Your task to perform on an android device: turn off javascript in the chrome app Image 0: 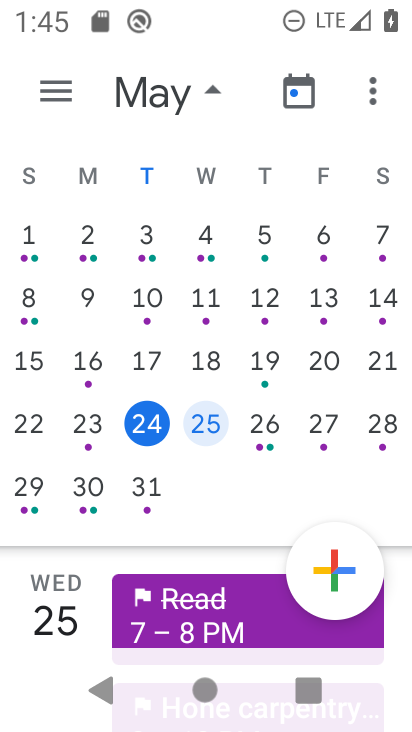
Step 0: press home button
Your task to perform on an android device: turn off javascript in the chrome app Image 1: 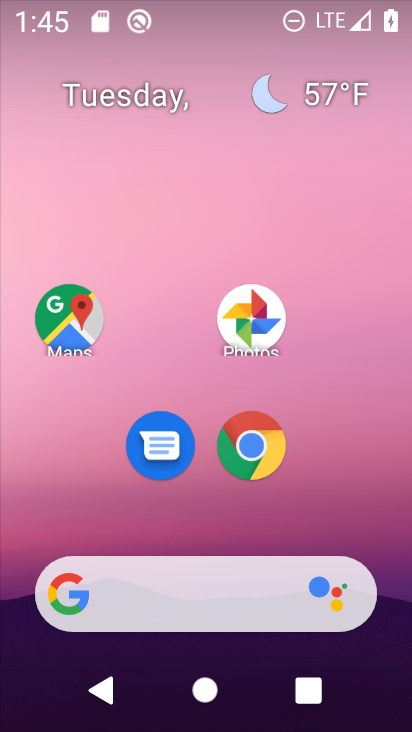
Step 1: drag from (382, 528) to (410, 496)
Your task to perform on an android device: turn off javascript in the chrome app Image 2: 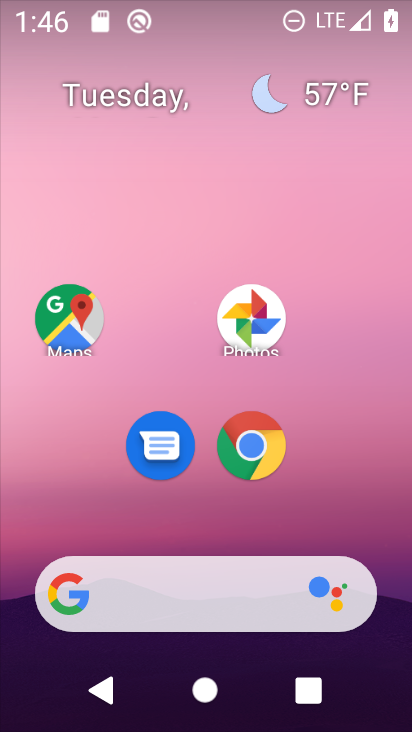
Step 2: drag from (373, 557) to (406, 517)
Your task to perform on an android device: turn off javascript in the chrome app Image 3: 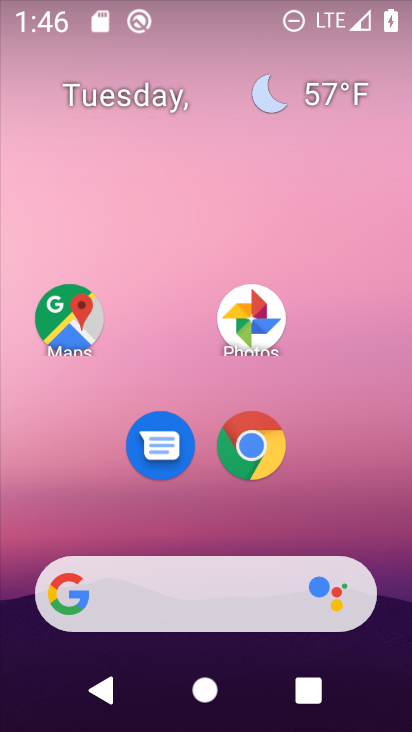
Step 3: drag from (363, 525) to (390, 33)
Your task to perform on an android device: turn off javascript in the chrome app Image 4: 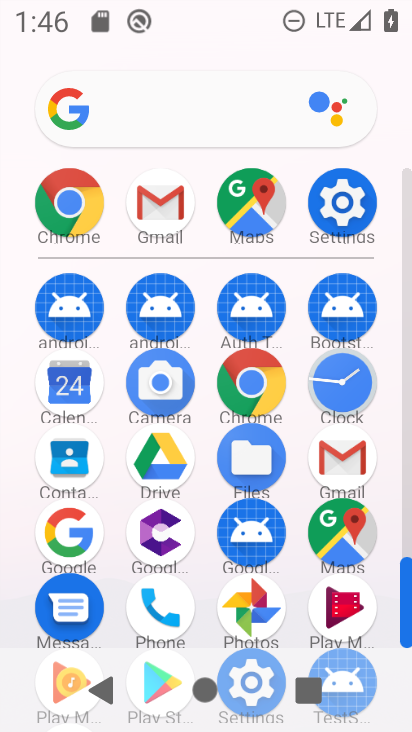
Step 4: click (259, 399)
Your task to perform on an android device: turn off javascript in the chrome app Image 5: 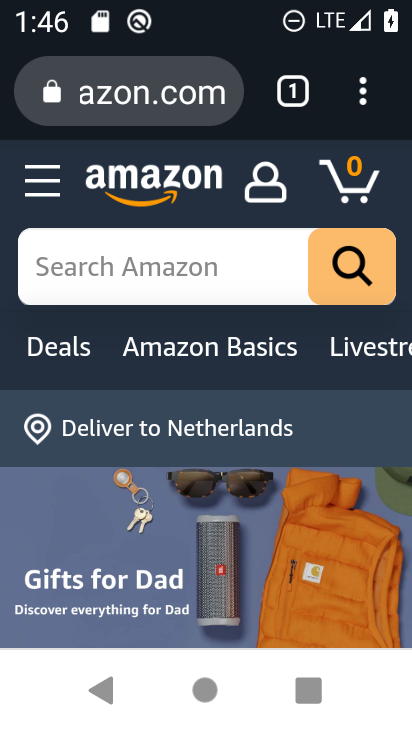
Step 5: click (358, 111)
Your task to perform on an android device: turn off javascript in the chrome app Image 6: 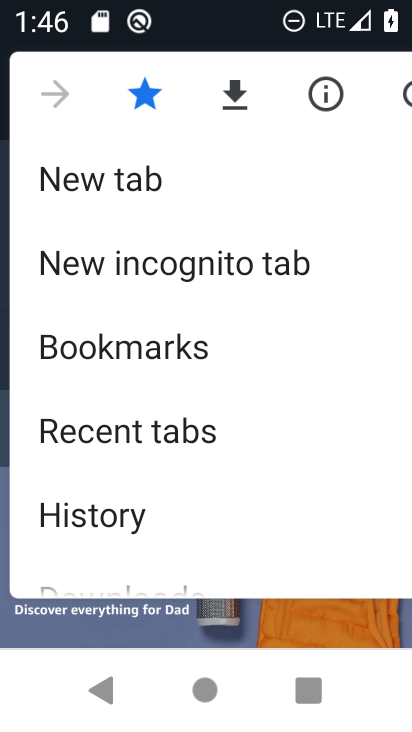
Step 6: drag from (320, 319) to (337, 227)
Your task to perform on an android device: turn off javascript in the chrome app Image 7: 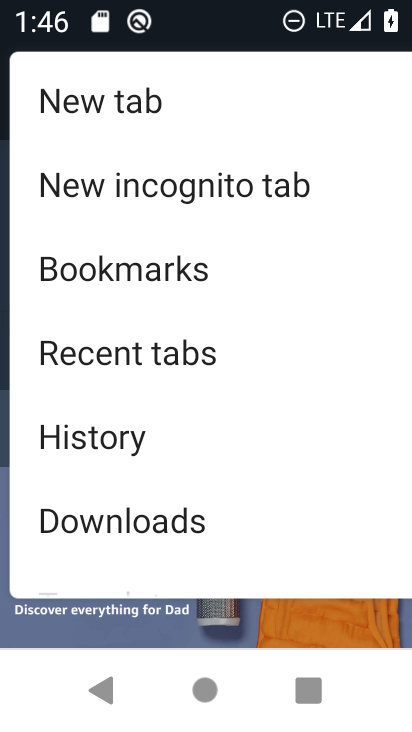
Step 7: drag from (321, 452) to (328, 317)
Your task to perform on an android device: turn off javascript in the chrome app Image 8: 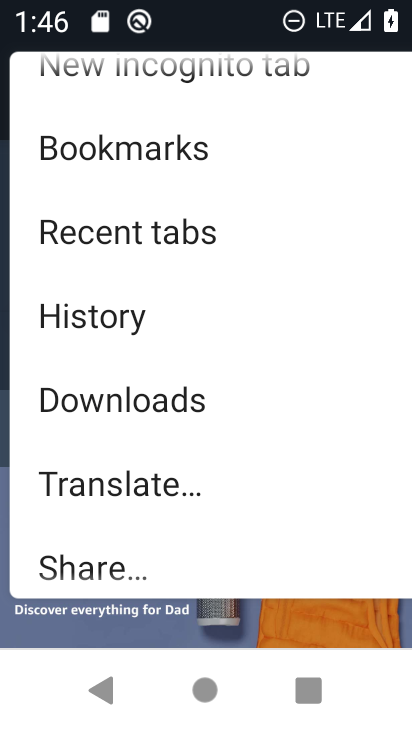
Step 8: drag from (286, 476) to (297, 344)
Your task to perform on an android device: turn off javascript in the chrome app Image 9: 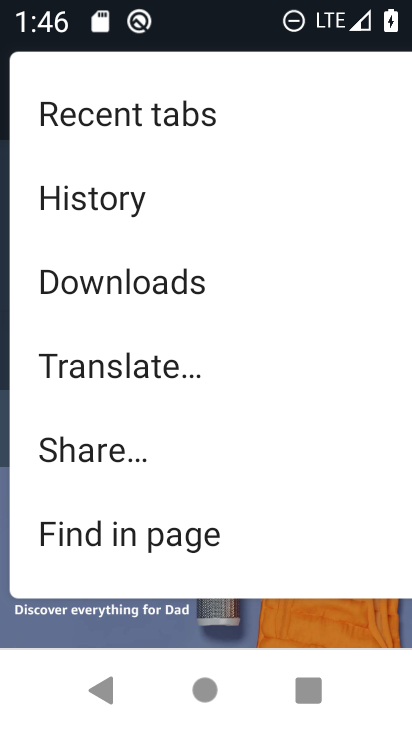
Step 9: drag from (278, 483) to (288, 308)
Your task to perform on an android device: turn off javascript in the chrome app Image 10: 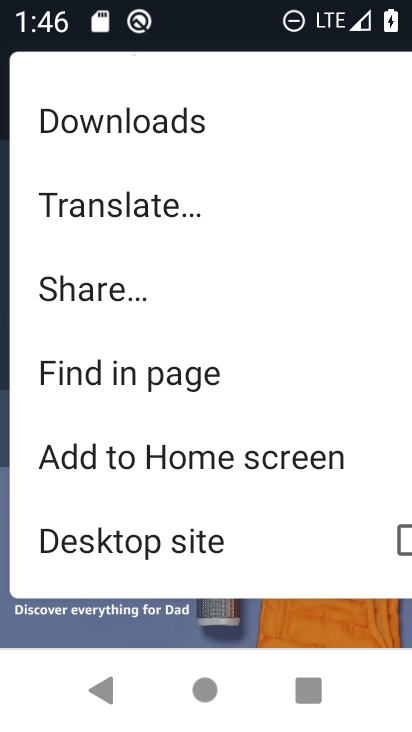
Step 10: drag from (267, 504) to (281, 331)
Your task to perform on an android device: turn off javascript in the chrome app Image 11: 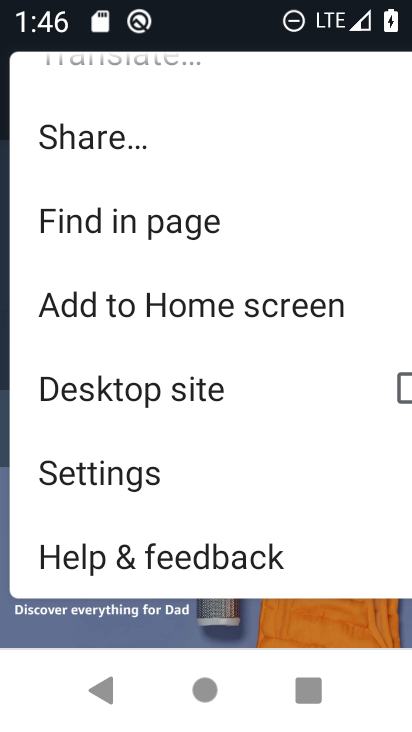
Step 11: click (186, 487)
Your task to perform on an android device: turn off javascript in the chrome app Image 12: 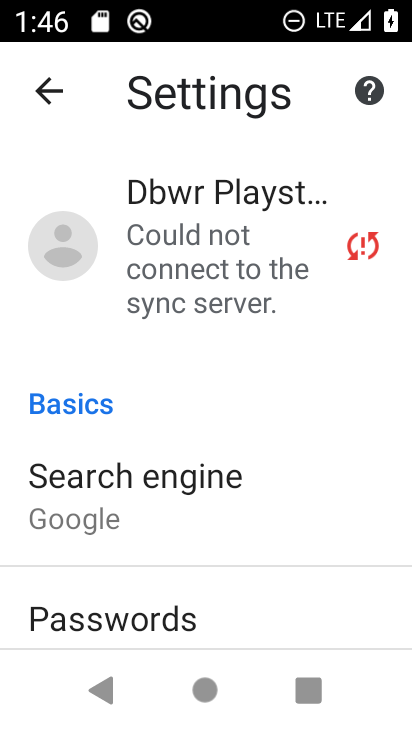
Step 12: drag from (324, 560) to (331, 418)
Your task to perform on an android device: turn off javascript in the chrome app Image 13: 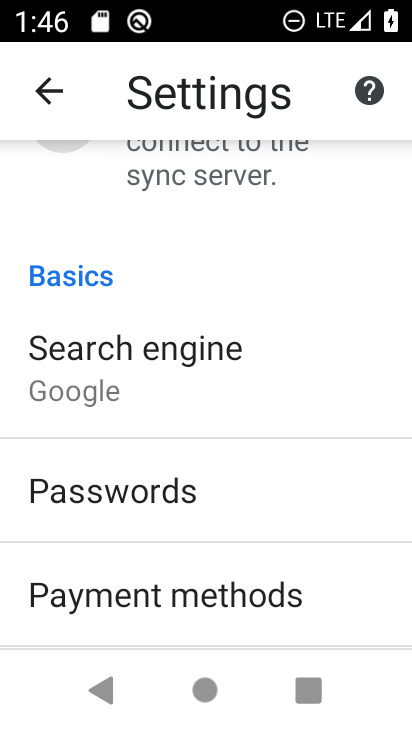
Step 13: drag from (305, 545) to (308, 450)
Your task to perform on an android device: turn off javascript in the chrome app Image 14: 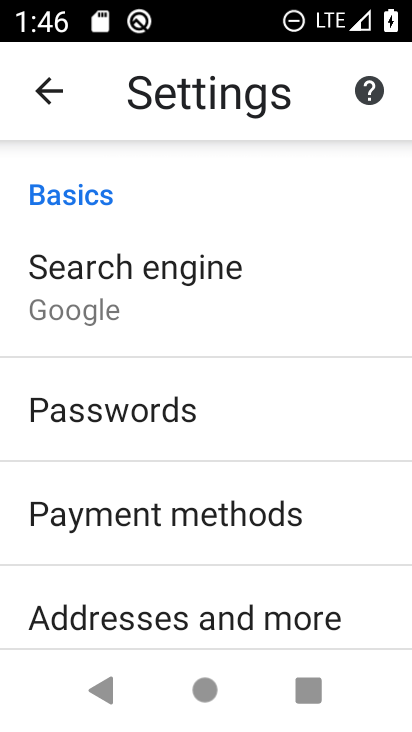
Step 14: drag from (350, 635) to (343, 474)
Your task to perform on an android device: turn off javascript in the chrome app Image 15: 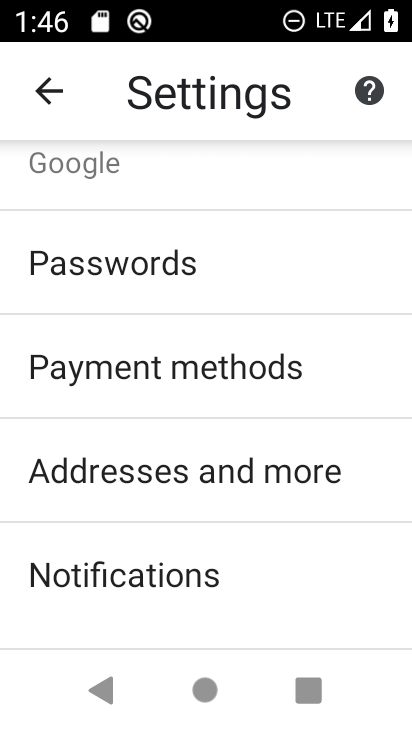
Step 15: drag from (341, 584) to (345, 450)
Your task to perform on an android device: turn off javascript in the chrome app Image 16: 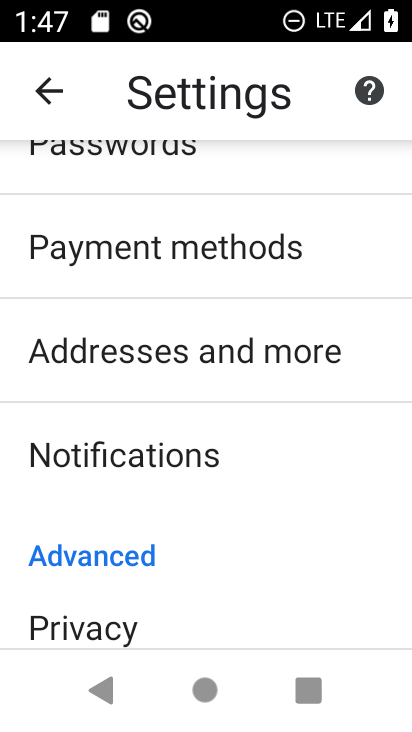
Step 16: drag from (335, 586) to (359, 397)
Your task to perform on an android device: turn off javascript in the chrome app Image 17: 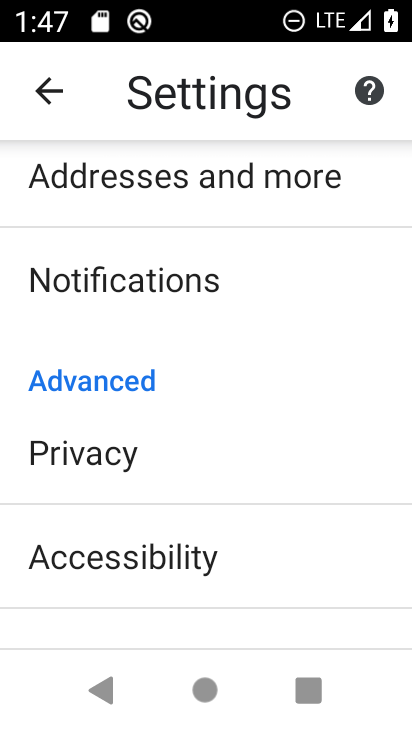
Step 17: drag from (329, 582) to (345, 445)
Your task to perform on an android device: turn off javascript in the chrome app Image 18: 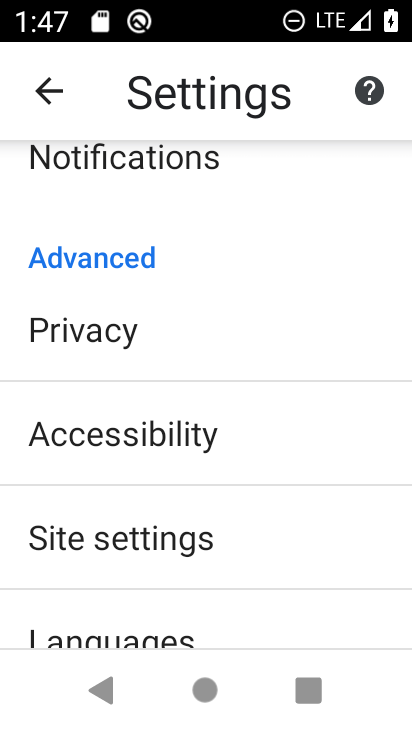
Step 18: click (279, 541)
Your task to perform on an android device: turn off javascript in the chrome app Image 19: 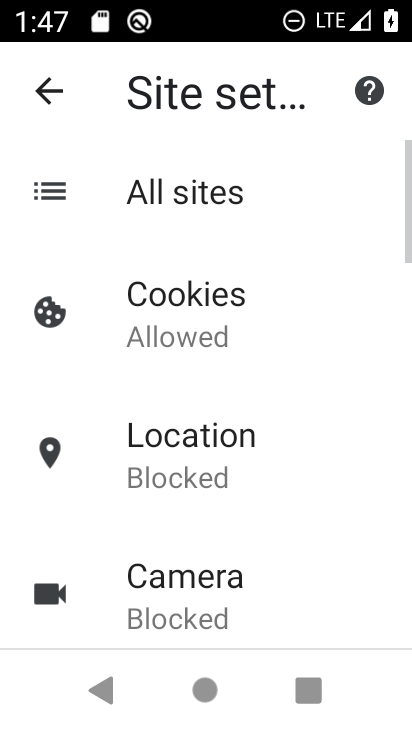
Step 19: drag from (356, 575) to (350, 440)
Your task to perform on an android device: turn off javascript in the chrome app Image 20: 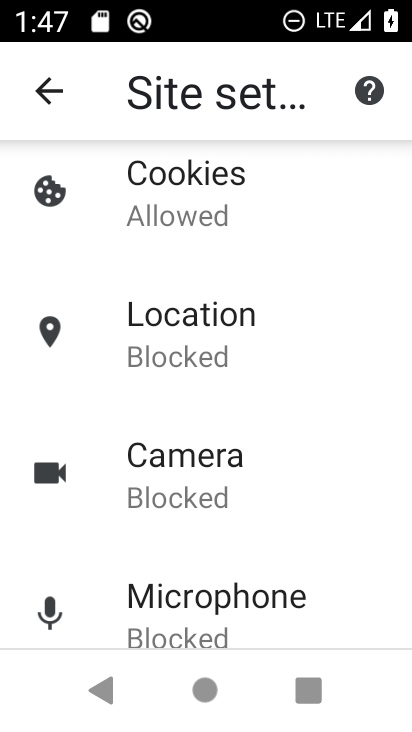
Step 20: drag from (344, 594) to (351, 485)
Your task to perform on an android device: turn off javascript in the chrome app Image 21: 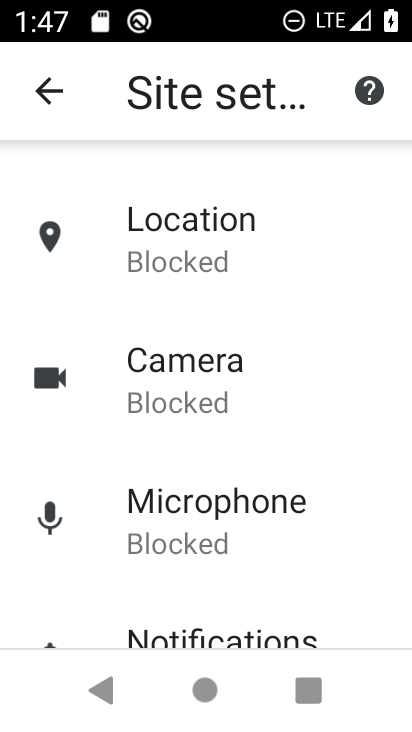
Step 21: drag from (346, 581) to (346, 462)
Your task to perform on an android device: turn off javascript in the chrome app Image 22: 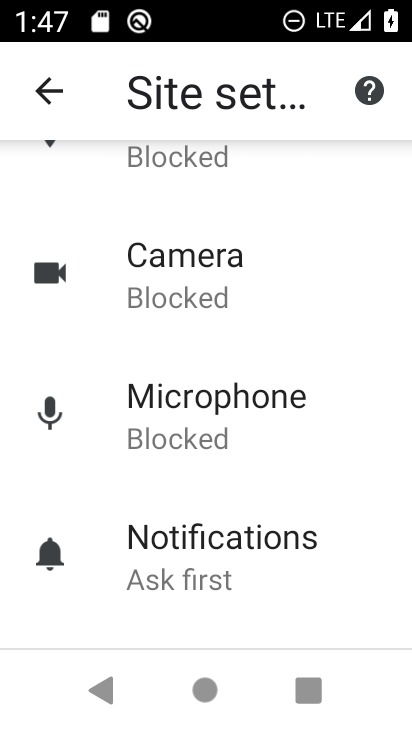
Step 22: drag from (333, 593) to (339, 473)
Your task to perform on an android device: turn off javascript in the chrome app Image 23: 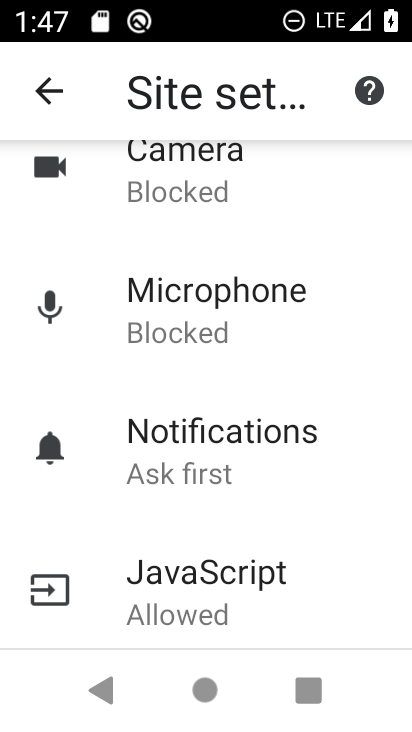
Step 23: drag from (325, 607) to (333, 513)
Your task to perform on an android device: turn off javascript in the chrome app Image 24: 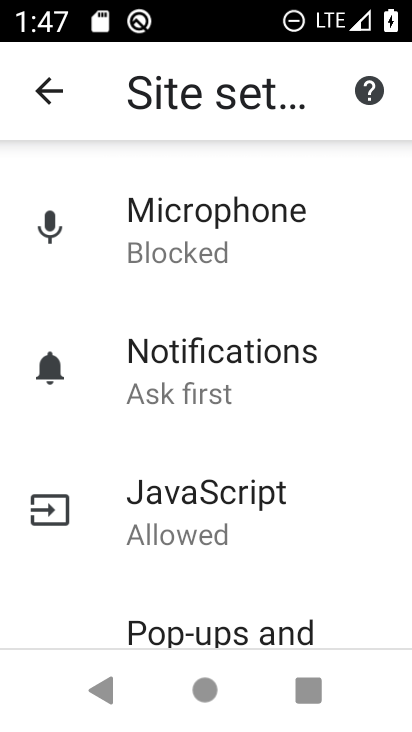
Step 24: click (239, 538)
Your task to perform on an android device: turn off javascript in the chrome app Image 25: 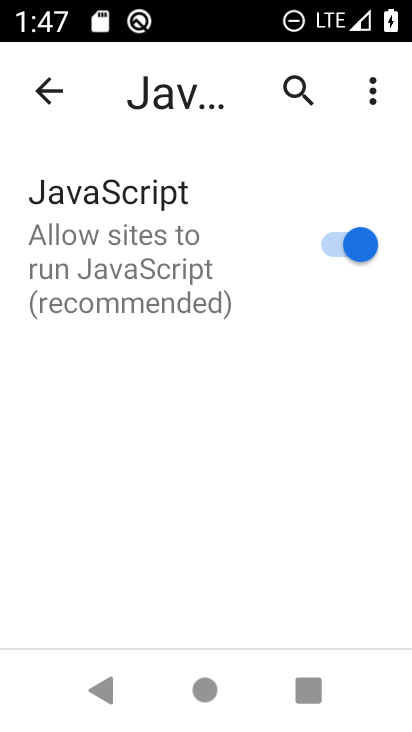
Step 25: click (356, 258)
Your task to perform on an android device: turn off javascript in the chrome app Image 26: 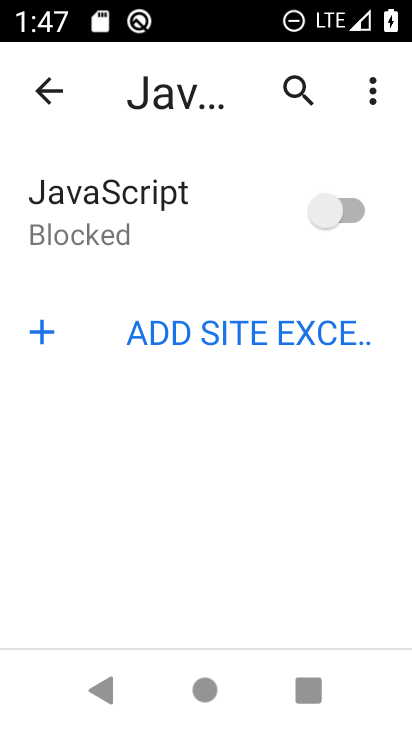
Step 26: task complete